Your task to perform on an android device: toggle javascript in the chrome app Image 0: 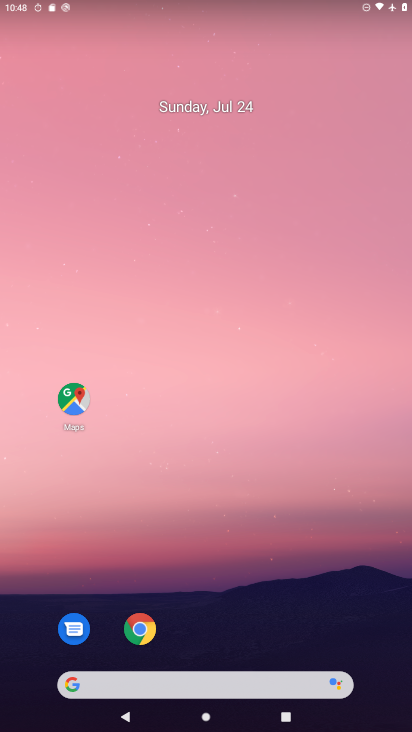
Step 0: drag from (239, 636) to (214, 185)
Your task to perform on an android device: toggle javascript in the chrome app Image 1: 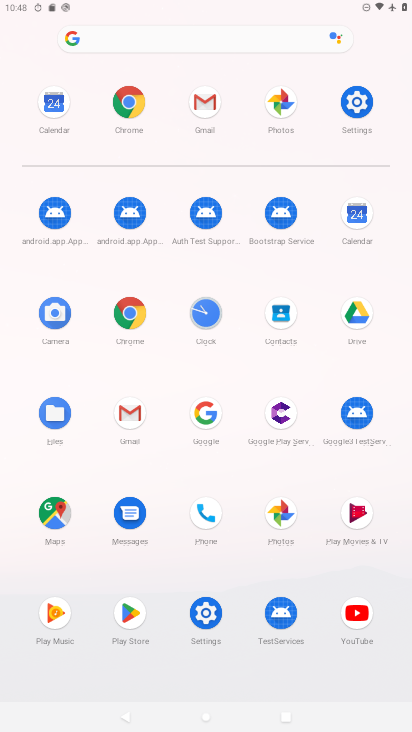
Step 1: click (135, 326)
Your task to perform on an android device: toggle javascript in the chrome app Image 2: 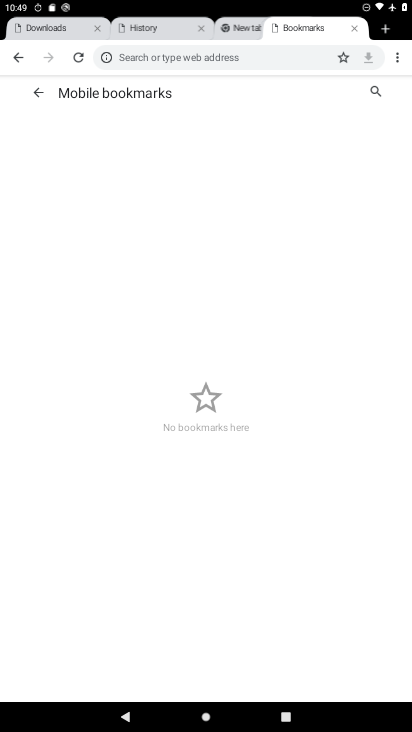
Step 2: click (399, 61)
Your task to perform on an android device: toggle javascript in the chrome app Image 3: 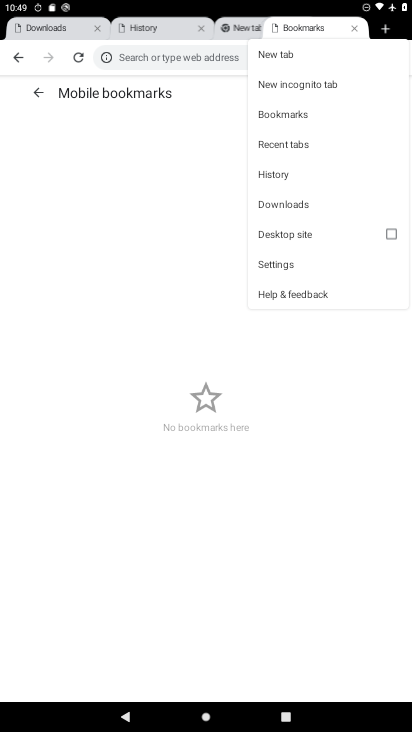
Step 3: click (290, 265)
Your task to perform on an android device: toggle javascript in the chrome app Image 4: 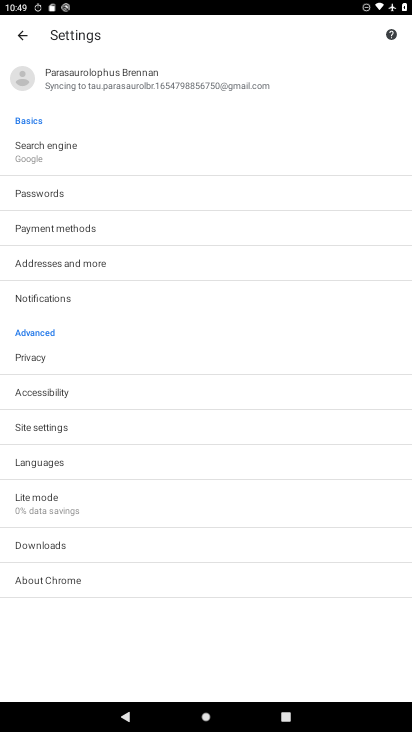
Step 4: click (41, 429)
Your task to perform on an android device: toggle javascript in the chrome app Image 5: 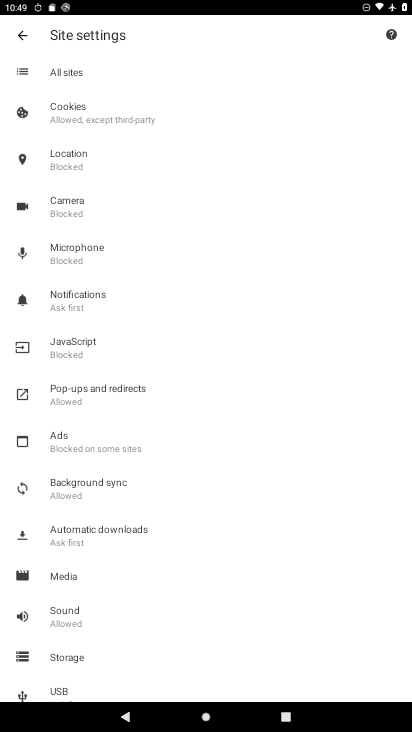
Step 5: click (66, 342)
Your task to perform on an android device: toggle javascript in the chrome app Image 6: 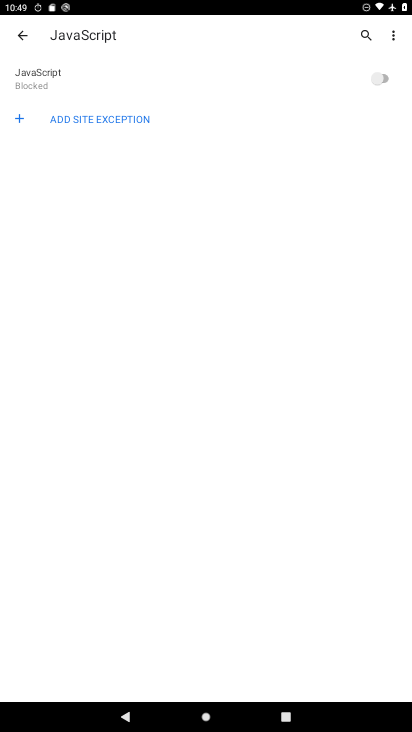
Step 6: click (374, 87)
Your task to perform on an android device: toggle javascript in the chrome app Image 7: 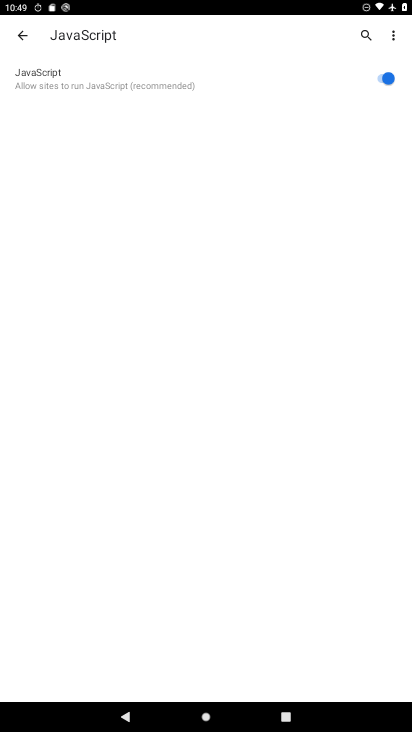
Step 7: task complete